Your task to perform on an android device: open app "Facebook Lite" (install if not already installed) Image 0: 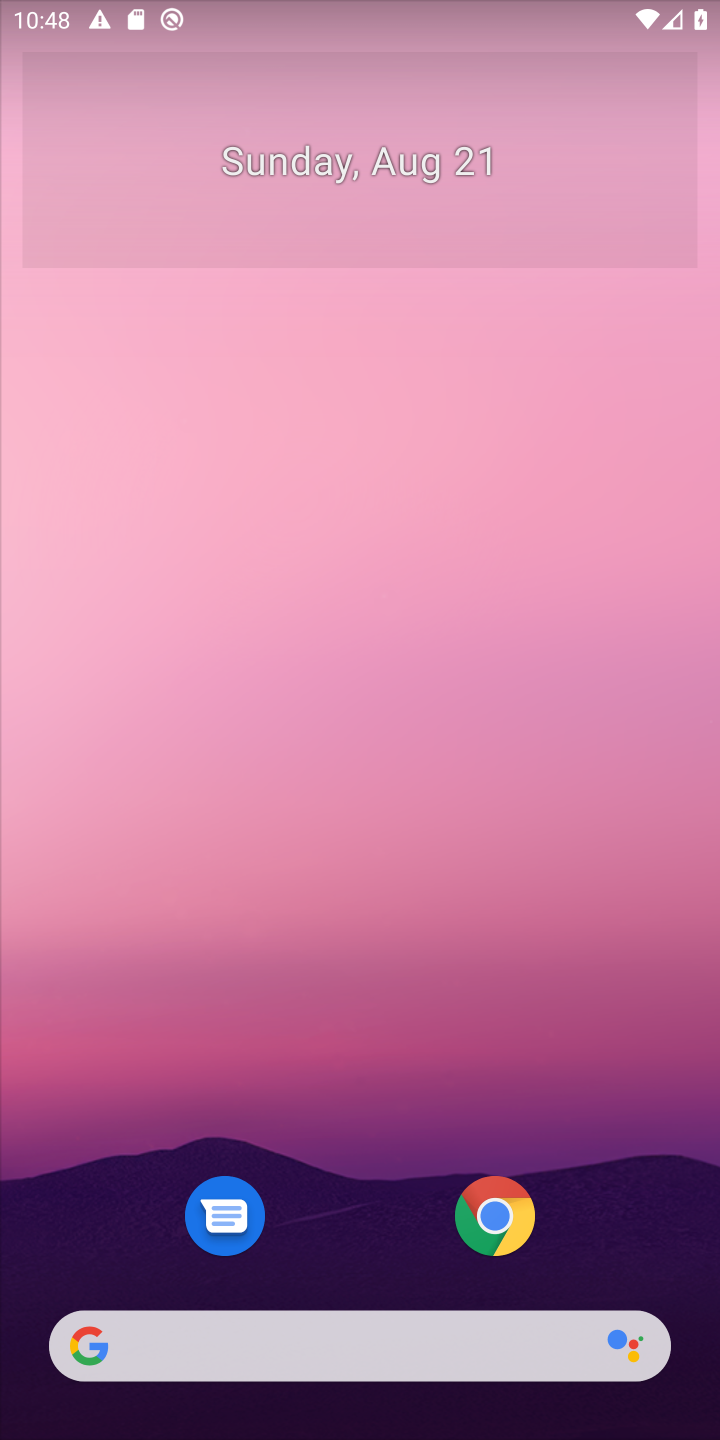
Step 0: drag from (301, 1296) to (711, 0)
Your task to perform on an android device: open app "Facebook Lite" (install if not already installed) Image 1: 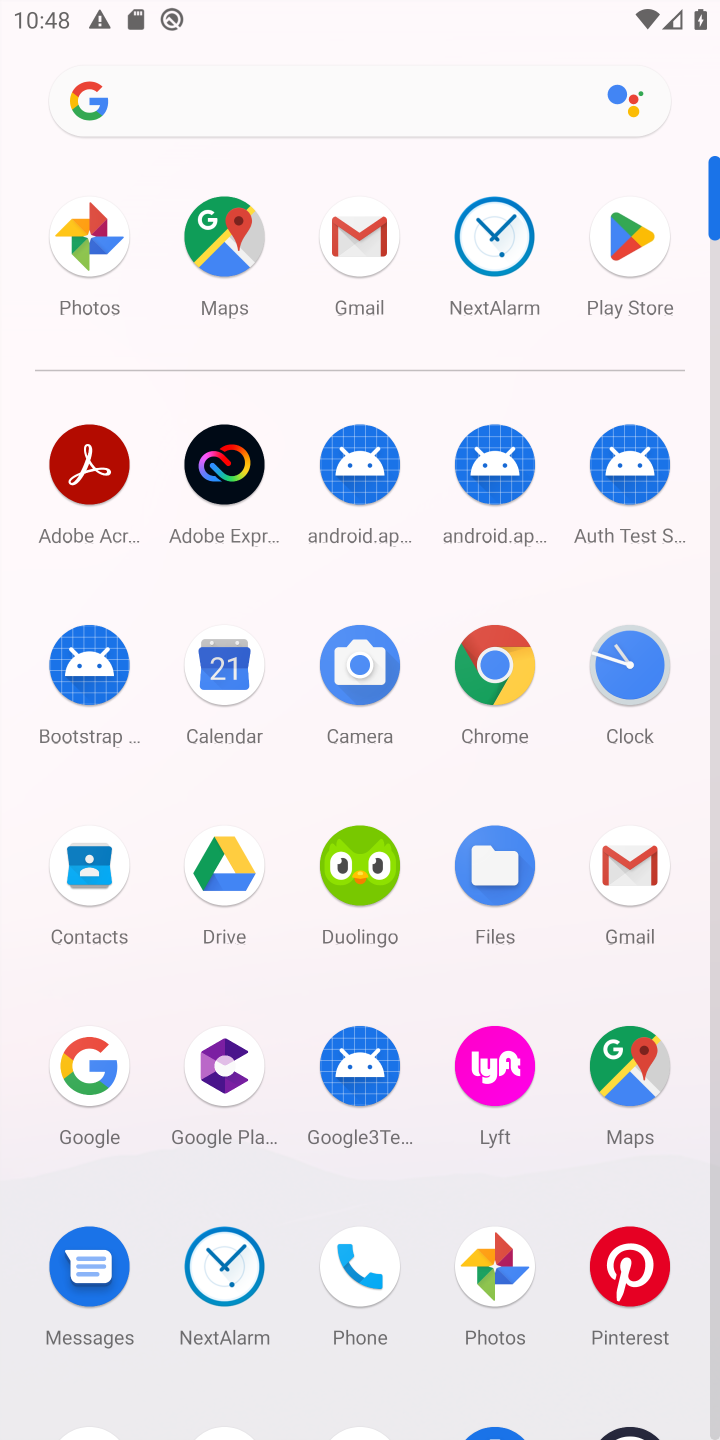
Step 1: click (621, 235)
Your task to perform on an android device: open app "Facebook Lite" (install if not already installed) Image 2: 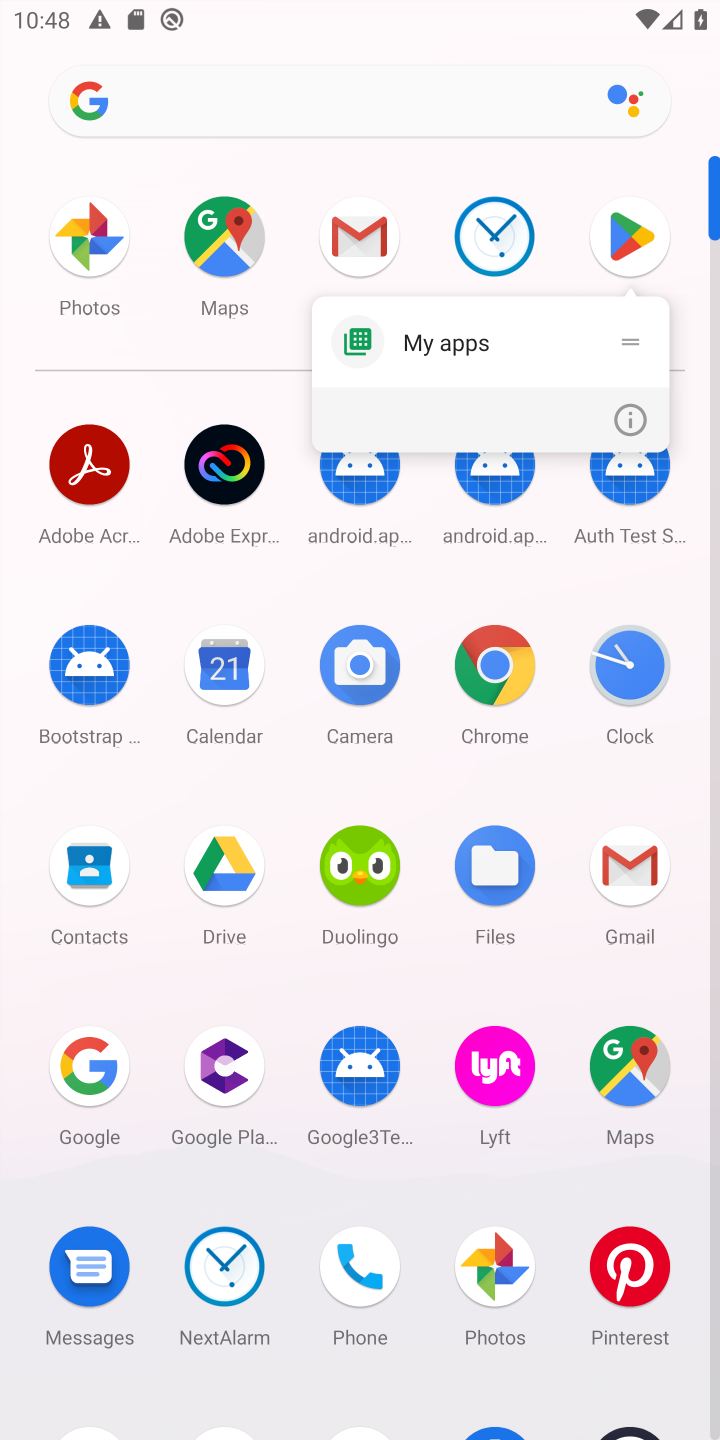
Step 2: click (619, 235)
Your task to perform on an android device: open app "Facebook Lite" (install if not already installed) Image 3: 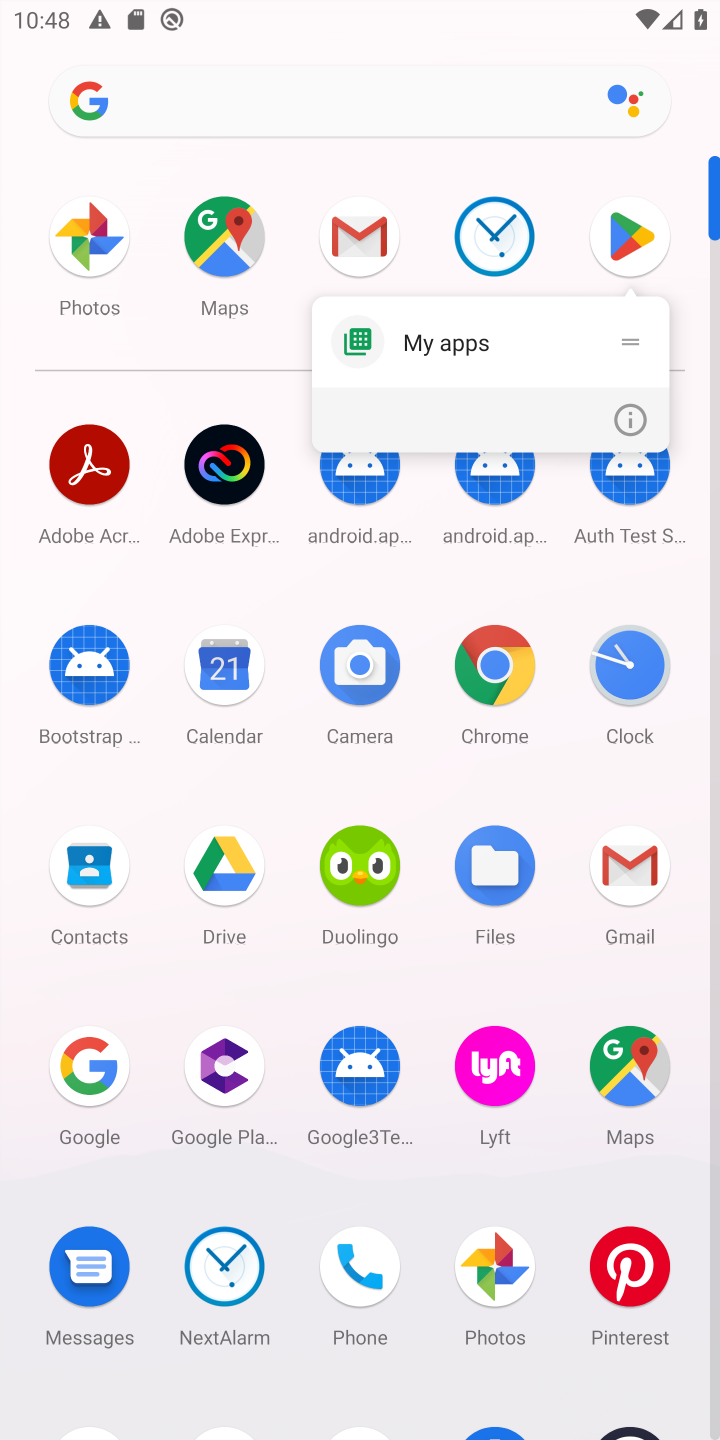
Step 3: click (617, 235)
Your task to perform on an android device: open app "Facebook Lite" (install if not already installed) Image 4: 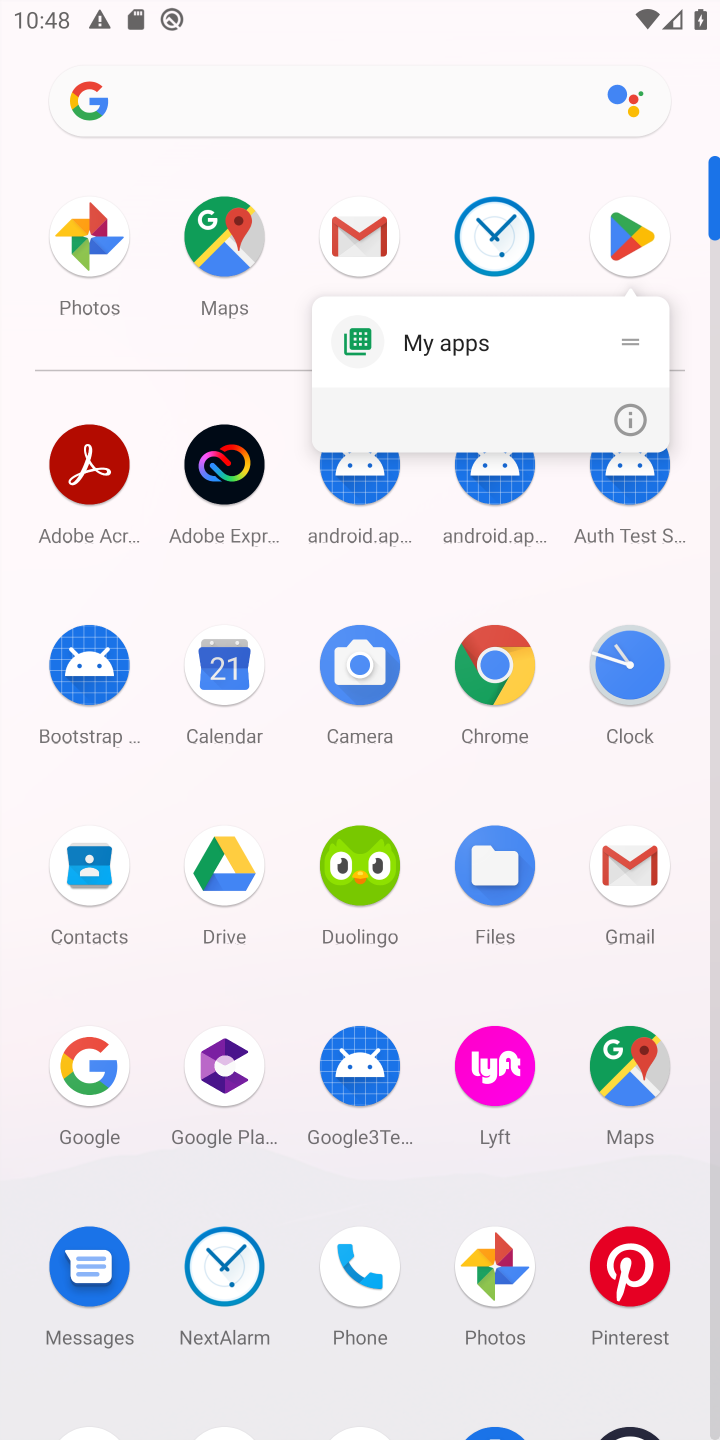
Step 4: click (612, 255)
Your task to perform on an android device: open app "Facebook Lite" (install if not already installed) Image 5: 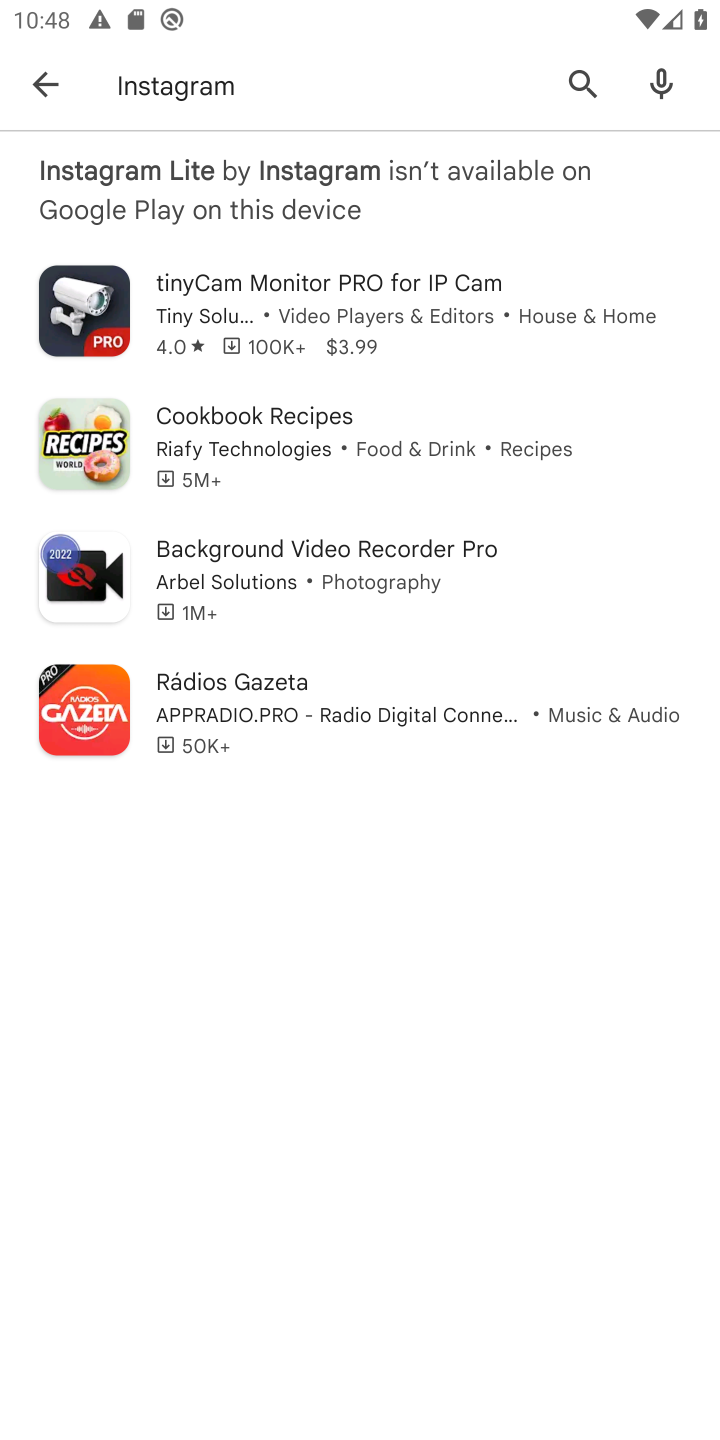
Step 5: press back button
Your task to perform on an android device: open app "Facebook Lite" (install if not already installed) Image 6: 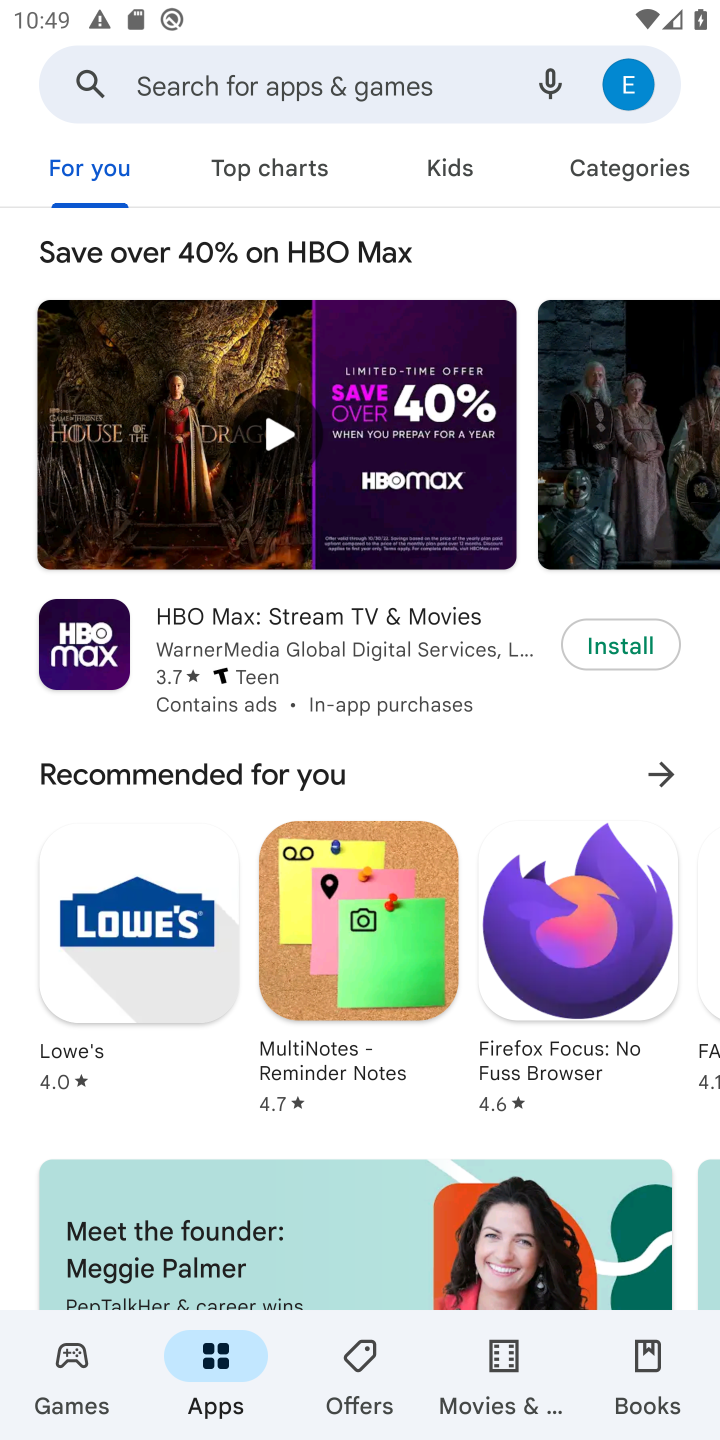
Step 6: click (187, 83)
Your task to perform on an android device: open app "Facebook Lite" (install if not already installed) Image 7: 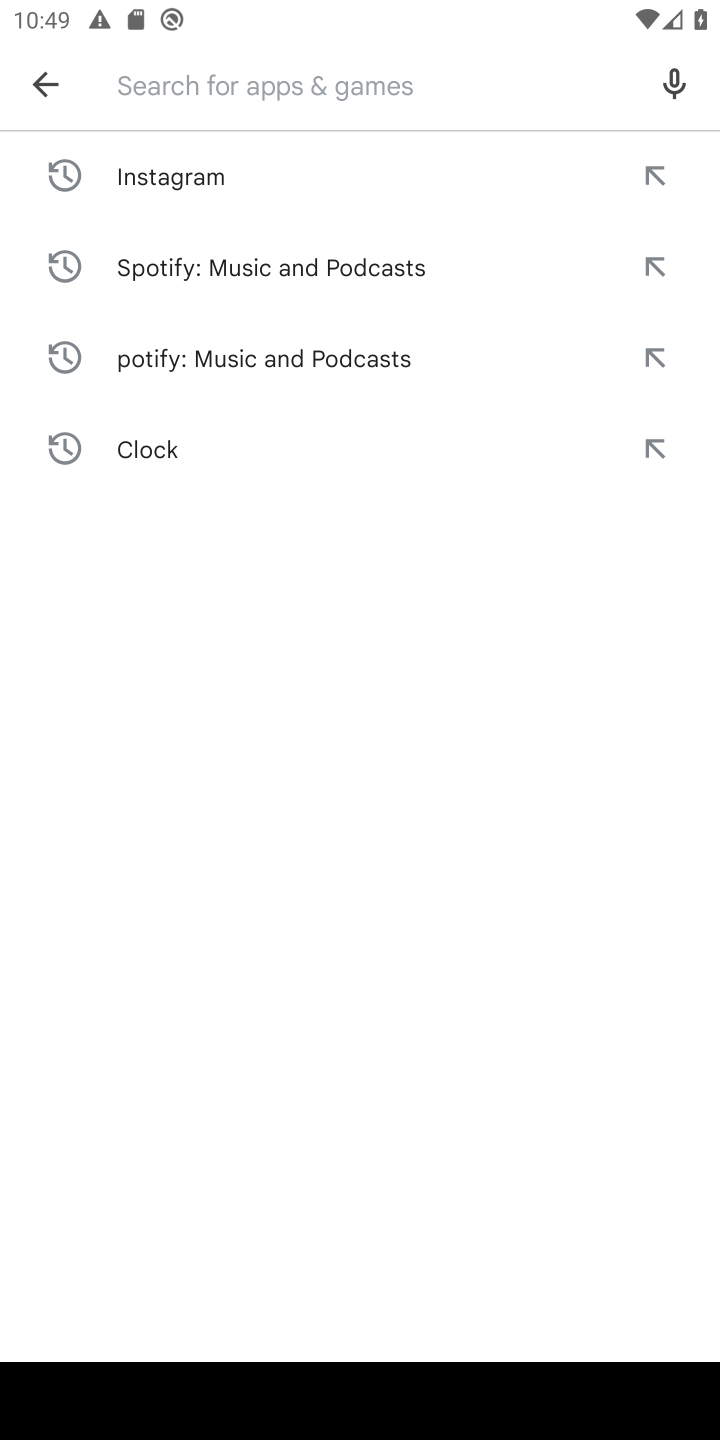
Step 7: type "Facebook Lite"
Your task to perform on an android device: open app "Facebook Lite" (install if not already installed) Image 8: 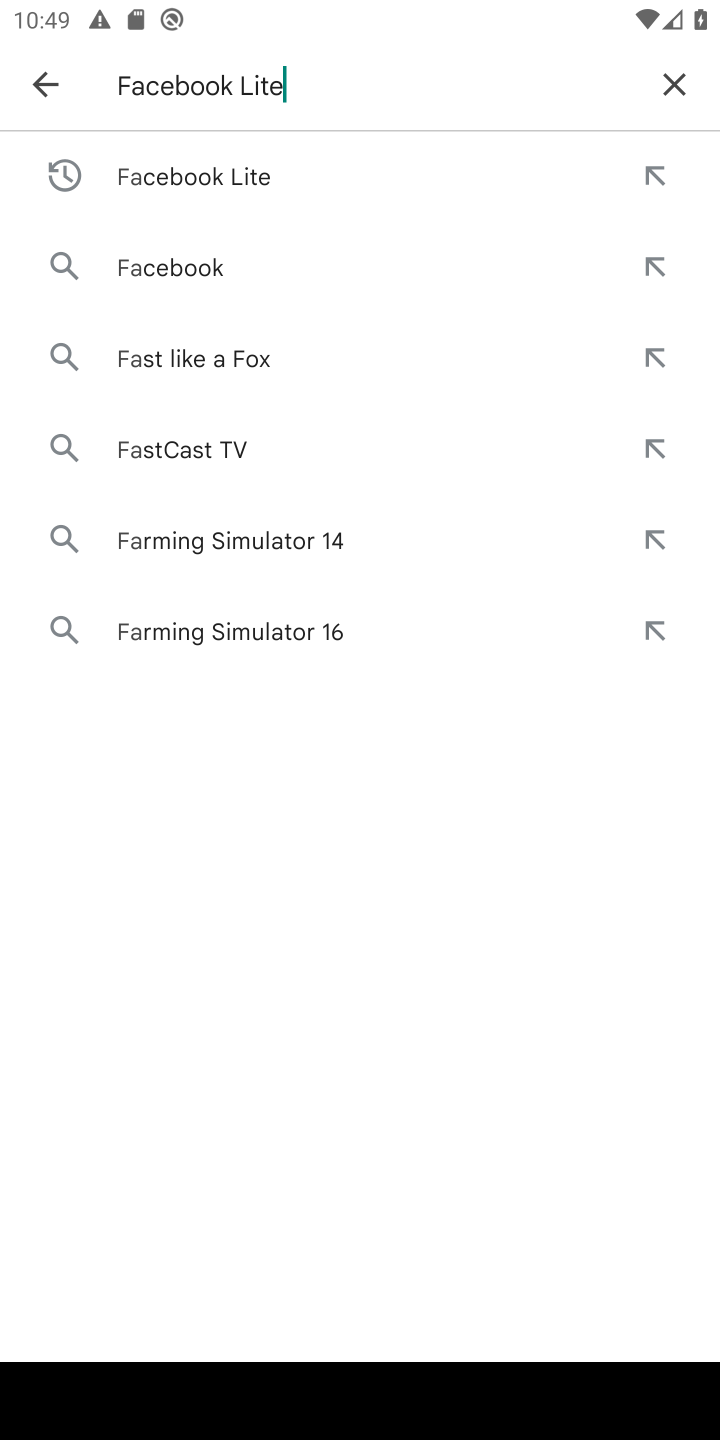
Step 8: press enter
Your task to perform on an android device: open app "Facebook Lite" (install if not already installed) Image 9: 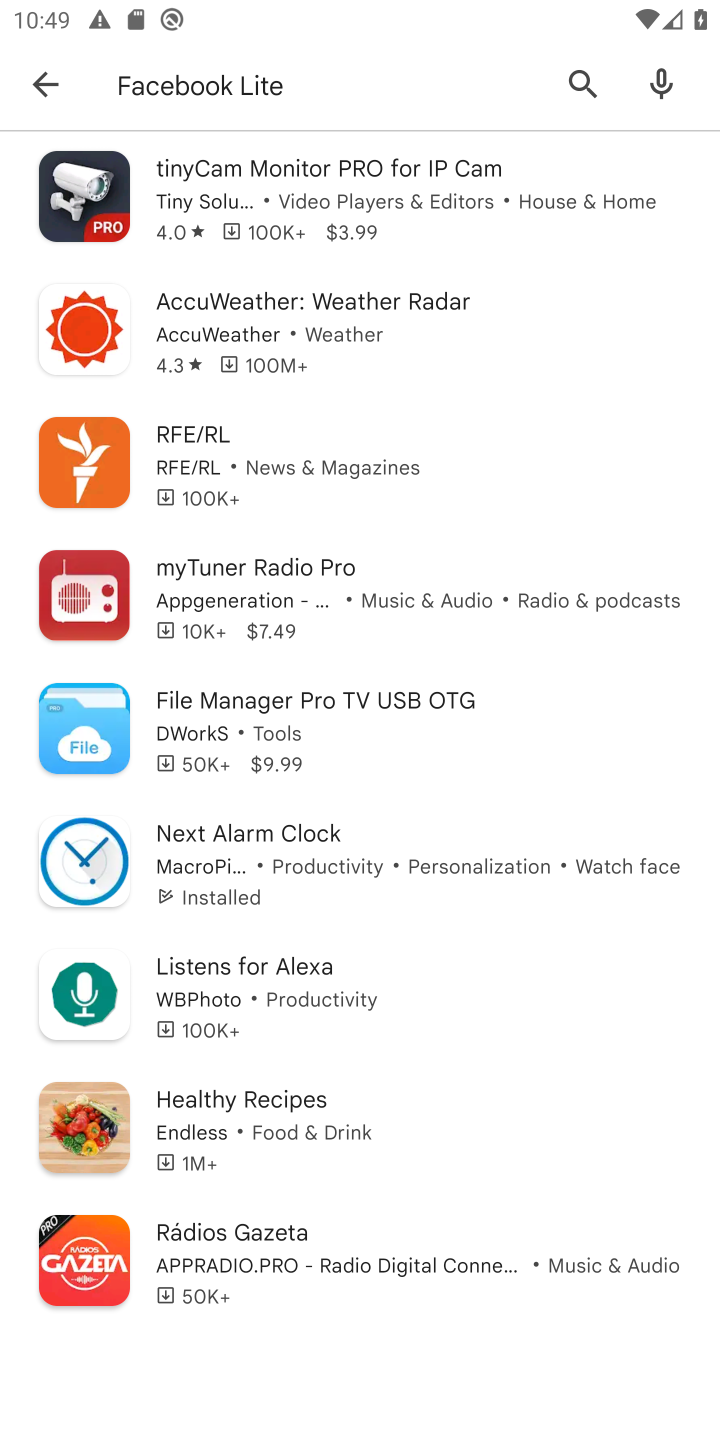
Step 9: task complete